Your task to perform on an android device: What's the weather? Image 0: 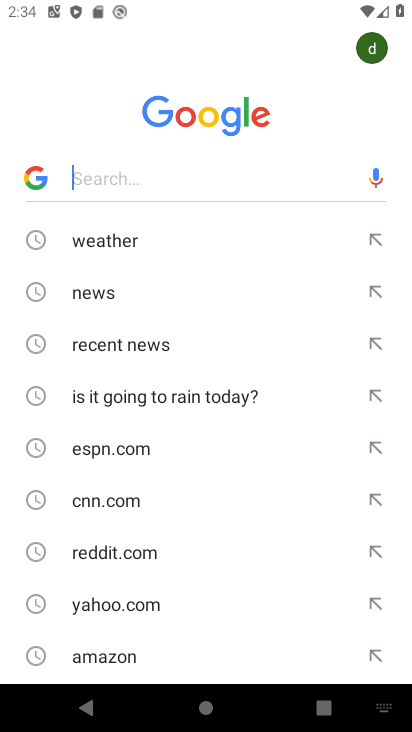
Step 0: click (158, 244)
Your task to perform on an android device: What's the weather? Image 1: 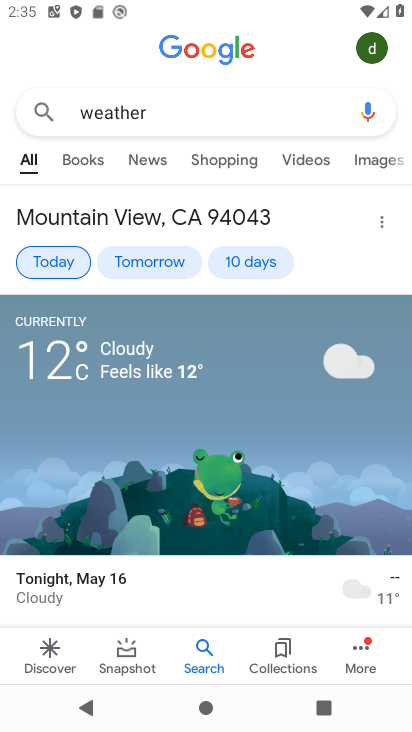
Step 1: task complete